Your task to perform on an android device: turn off javascript in the chrome app Image 0: 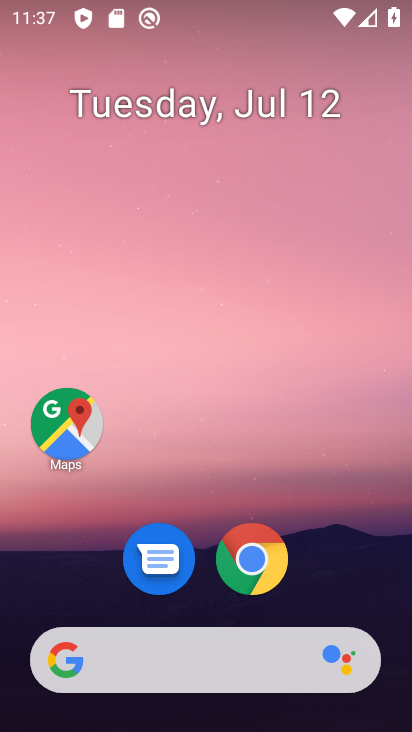
Step 0: drag from (233, 649) to (310, 115)
Your task to perform on an android device: turn off javascript in the chrome app Image 1: 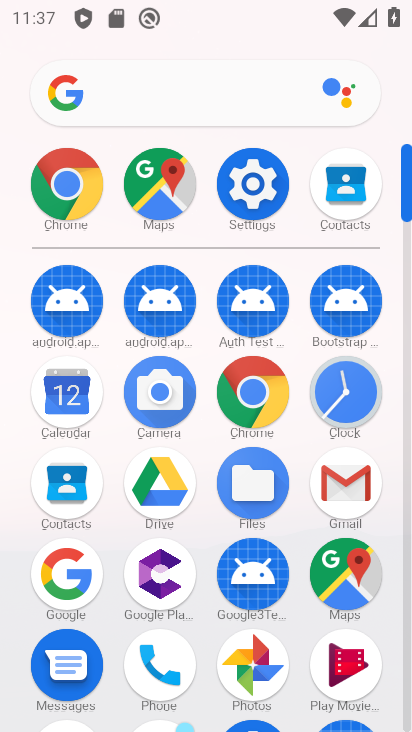
Step 1: drag from (221, 527) to (238, 347)
Your task to perform on an android device: turn off javascript in the chrome app Image 2: 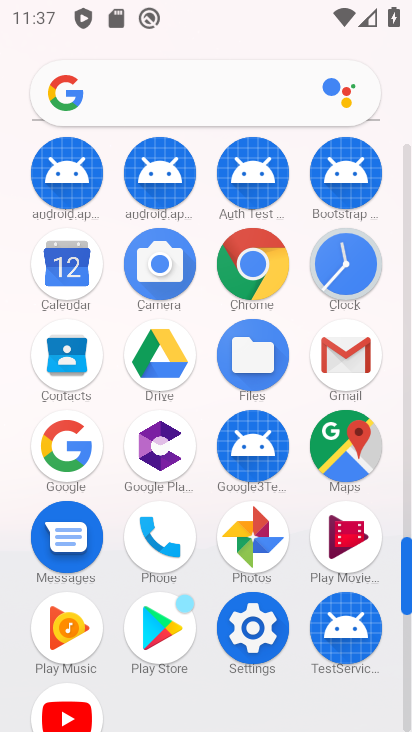
Step 2: click (249, 282)
Your task to perform on an android device: turn off javascript in the chrome app Image 3: 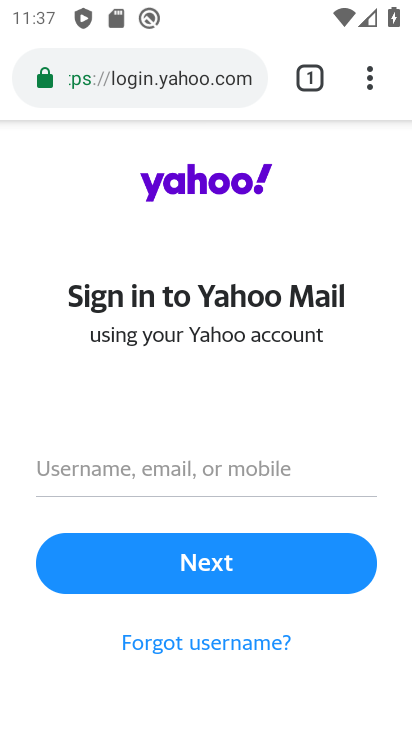
Step 3: click (365, 91)
Your task to perform on an android device: turn off javascript in the chrome app Image 4: 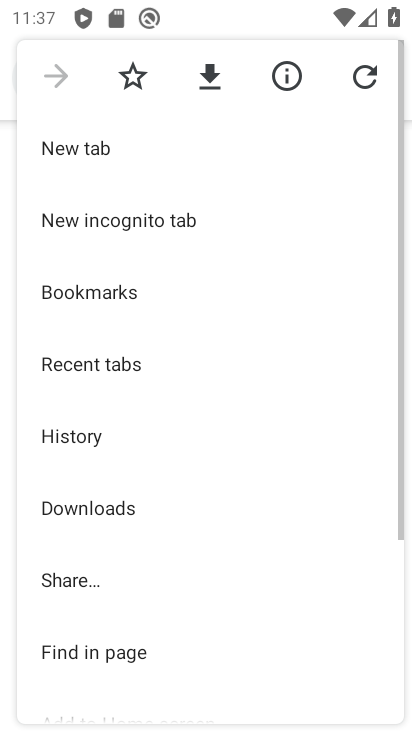
Step 4: drag from (178, 575) to (265, 195)
Your task to perform on an android device: turn off javascript in the chrome app Image 5: 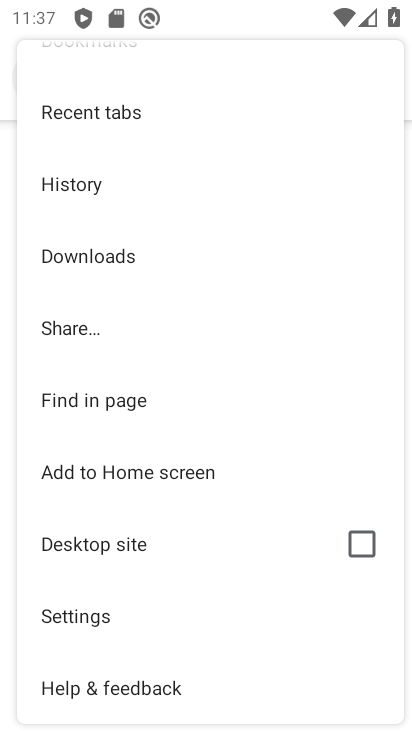
Step 5: click (93, 619)
Your task to perform on an android device: turn off javascript in the chrome app Image 6: 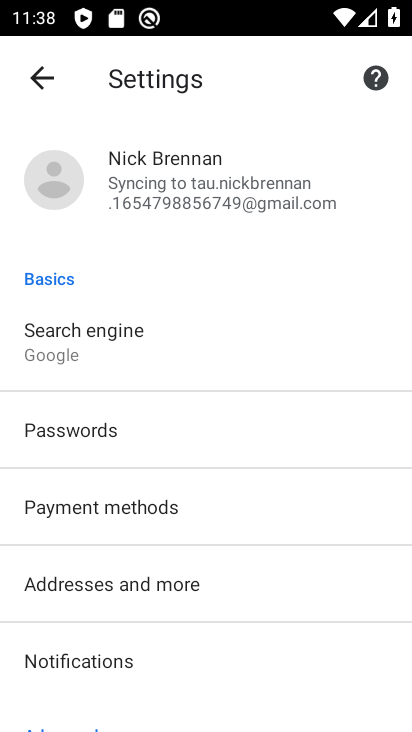
Step 6: drag from (141, 572) to (230, 251)
Your task to perform on an android device: turn off javascript in the chrome app Image 7: 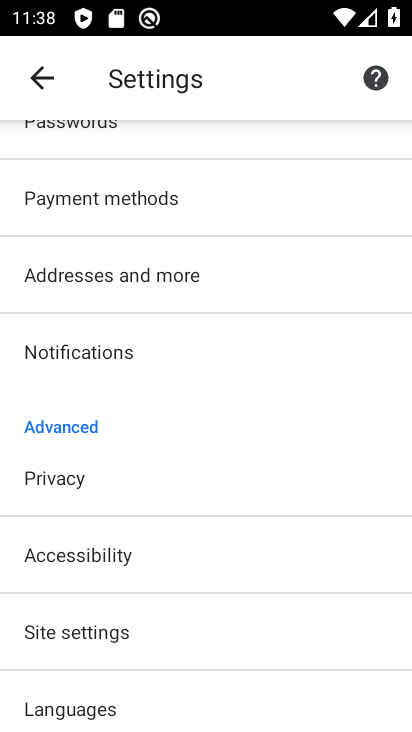
Step 7: click (94, 626)
Your task to perform on an android device: turn off javascript in the chrome app Image 8: 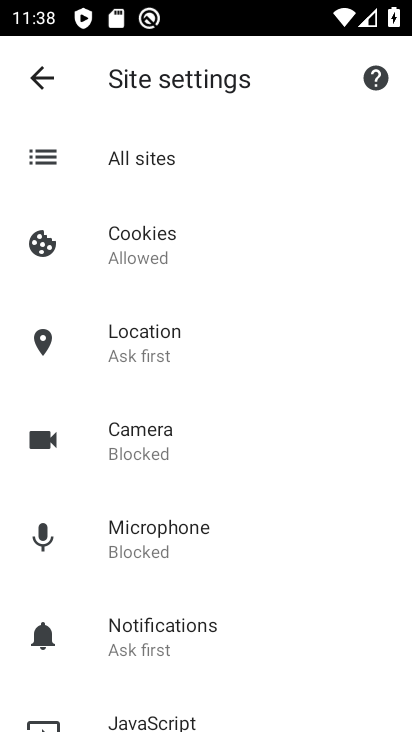
Step 8: drag from (169, 619) to (209, 405)
Your task to perform on an android device: turn off javascript in the chrome app Image 9: 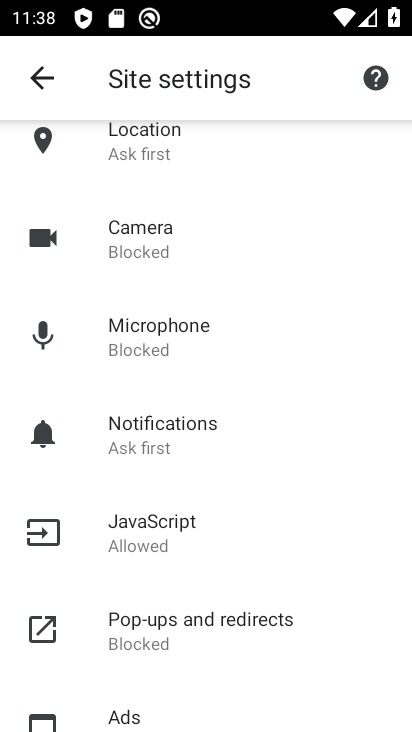
Step 9: click (179, 539)
Your task to perform on an android device: turn off javascript in the chrome app Image 10: 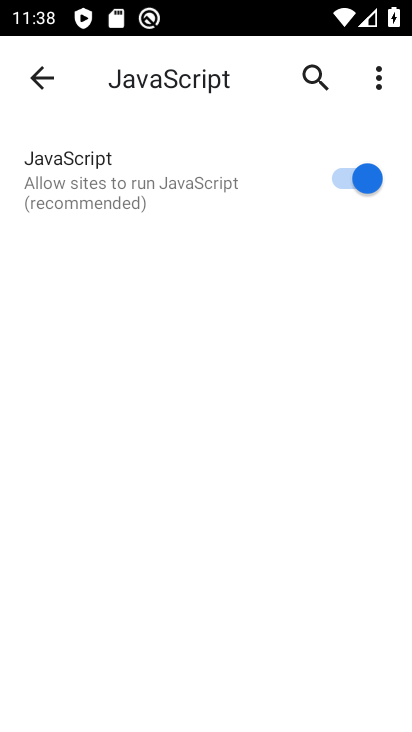
Step 10: click (327, 180)
Your task to perform on an android device: turn off javascript in the chrome app Image 11: 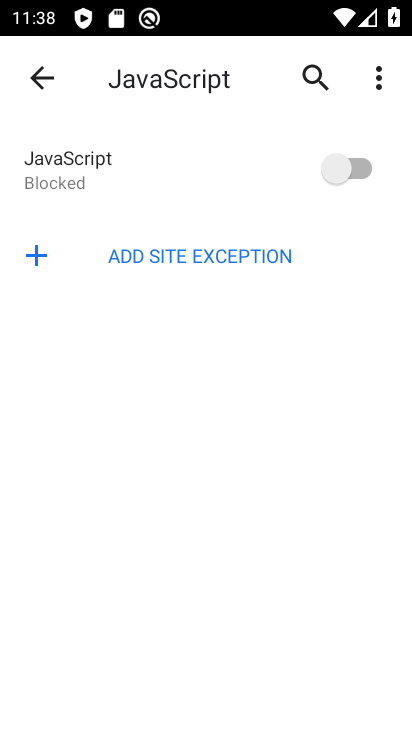
Step 11: task complete